Your task to perform on an android device: turn off smart reply in the gmail app Image 0: 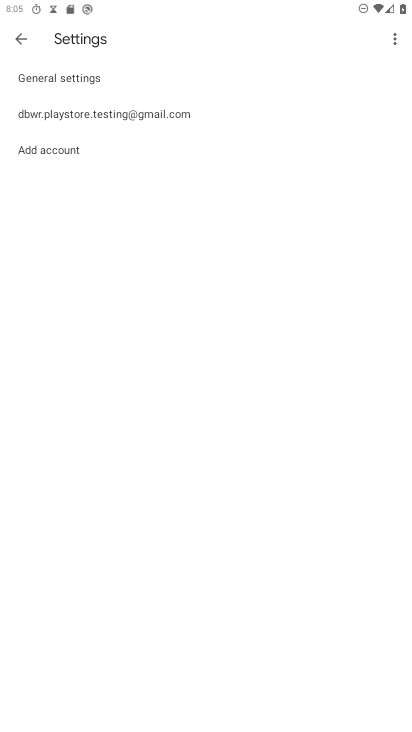
Step 0: click (13, 38)
Your task to perform on an android device: turn off smart reply in the gmail app Image 1: 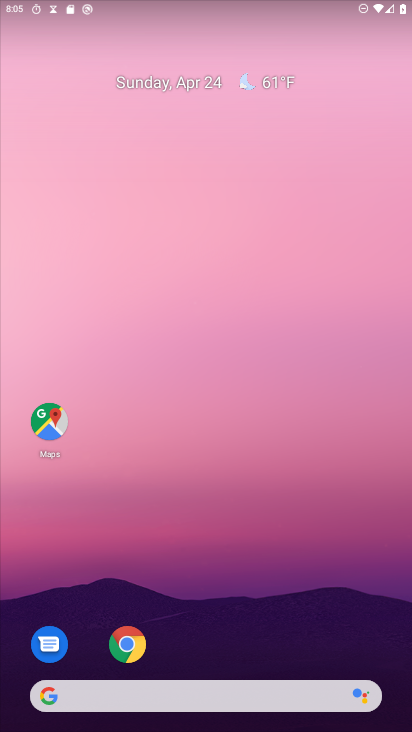
Step 1: drag from (200, 696) to (211, 218)
Your task to perform on an android device: turn off smart reply in the gmail app Image 2: 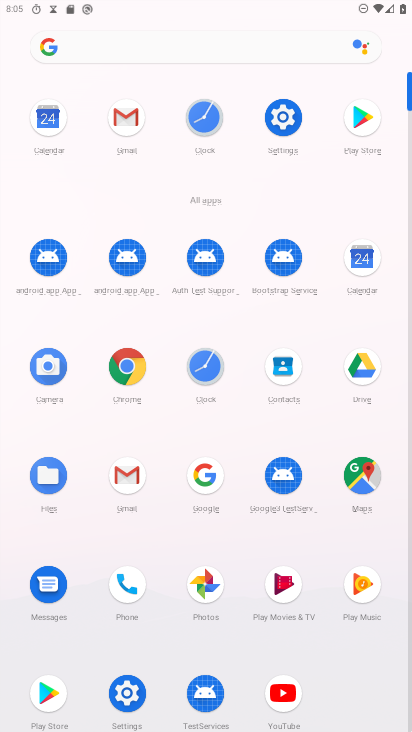
Step 2: click (130, 130)
Your task to perform on an android device: turn off smart reply in the gmail app Image 3: 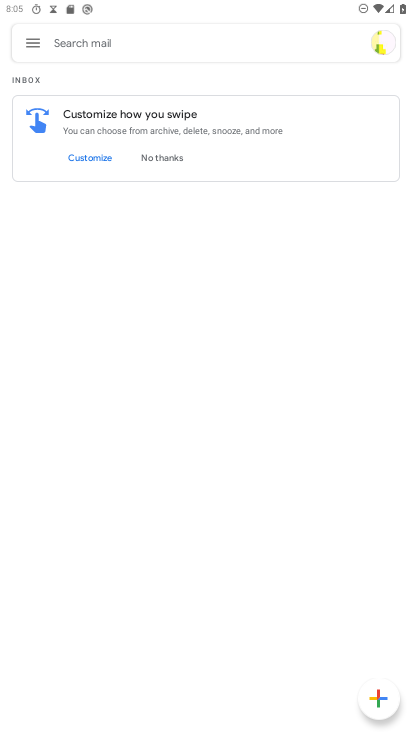
Step 3: click (38, 45)
Your task to perform on an android device: turn off smart reply in the gmail app Image 4: 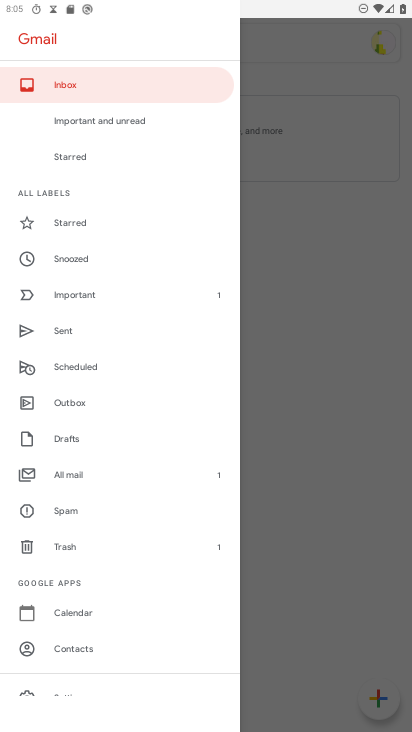
Step 4: drag from (90, 644) to (103, 111)
Your task to perform on an android device: turn off smart reply in the gmail app Image 5: 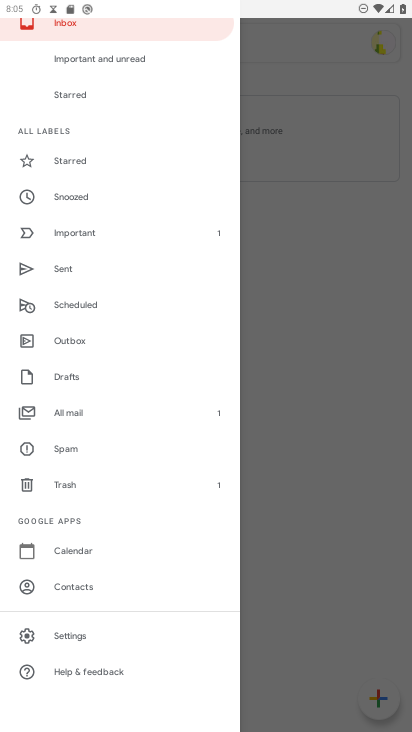
Step 5: click (74, 640)
Your task to perform on an android device: turn off smart reply in the gmail app Image 6: 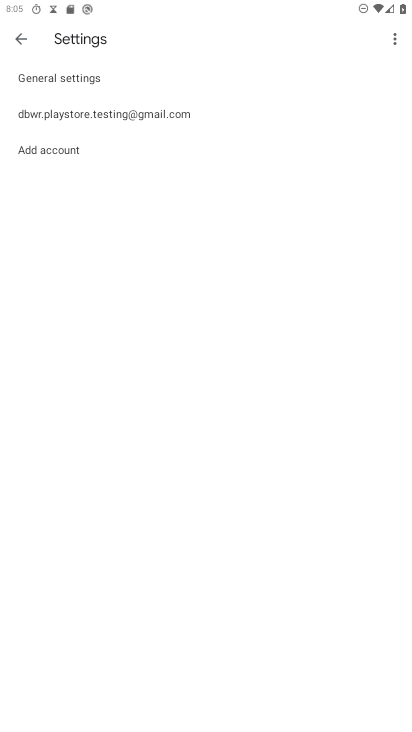
Step 6: click (109, 110)
Your task to perform on an android device: turn off smart reply in the gmail app Image 7: 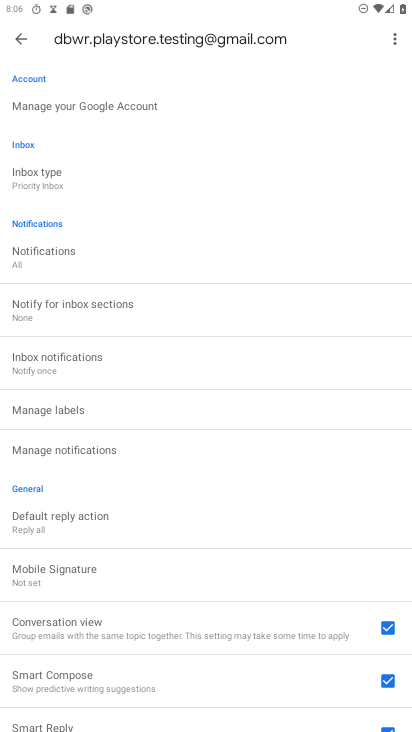
Step 7: drag from (167, 673) to (159, 226)
Your task to perform on an android device: turn off smart reply in the gmail app Image 8: 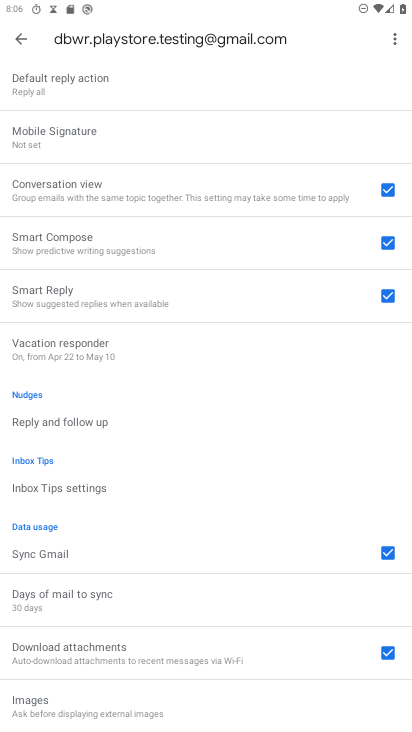
Step 8: click (388, 292)
Your task to perform on an android device: turn off smart reply in the gmail app Image 9: 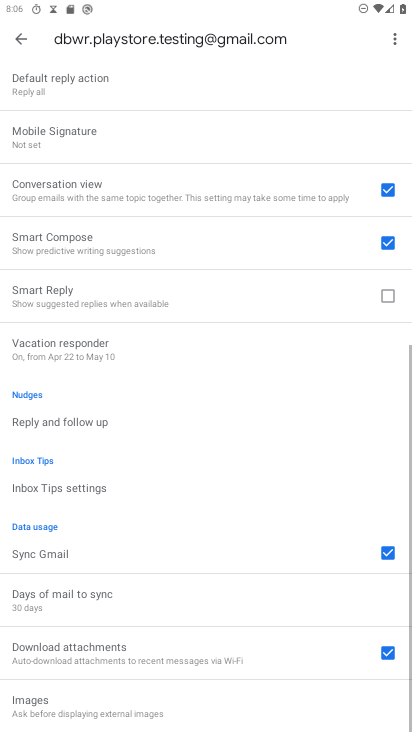
Step 9: task complete